Your task to perform on an android device: move an email to a new category in the gmail app Image 0: 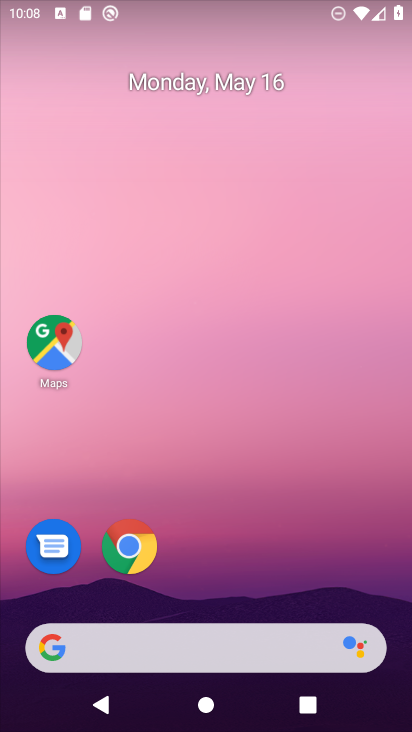
Step 0: drag from (247, 608) to (278, 4)
Your task to perform on an android device: move an email to a new category in the gmail app Image 1: 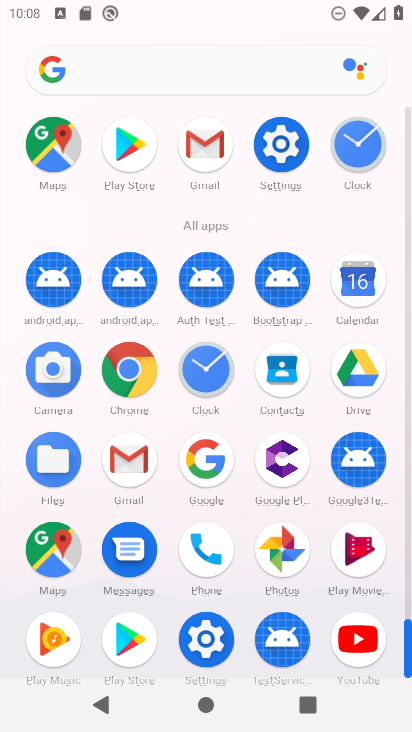
Step 1: click (197, 160)
Your task to perform on an android device: move an email to a new category in the gmail app Image 2: 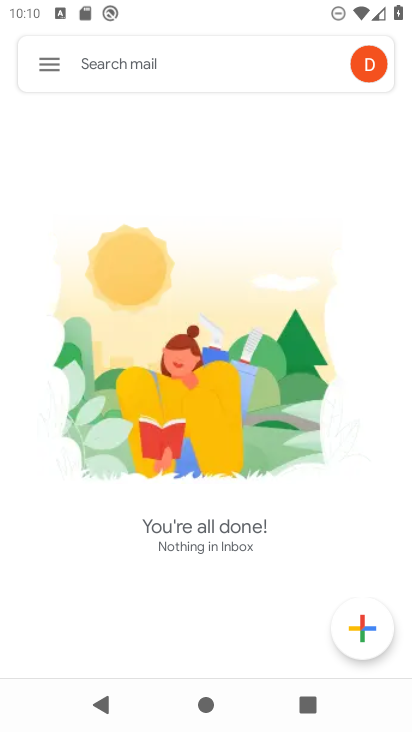
Step 2: task complete